Your task to perform on an android device: see tabs open on other devices in the chrome app Image 0: 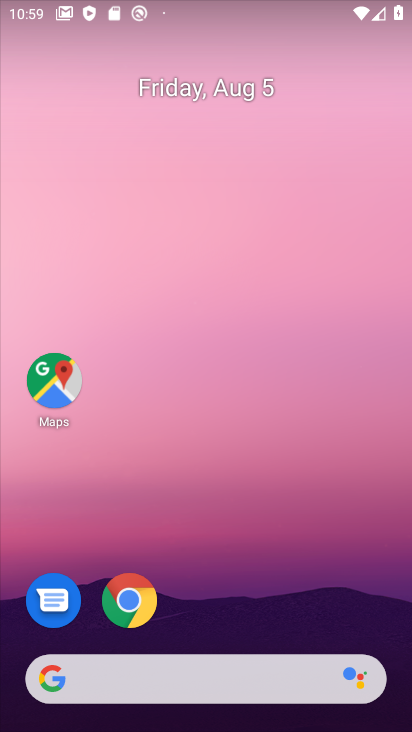
Step 0: click (124, 599)
Your task to perform on an android device: see tabs open on other devices in the chrome app Image 1: 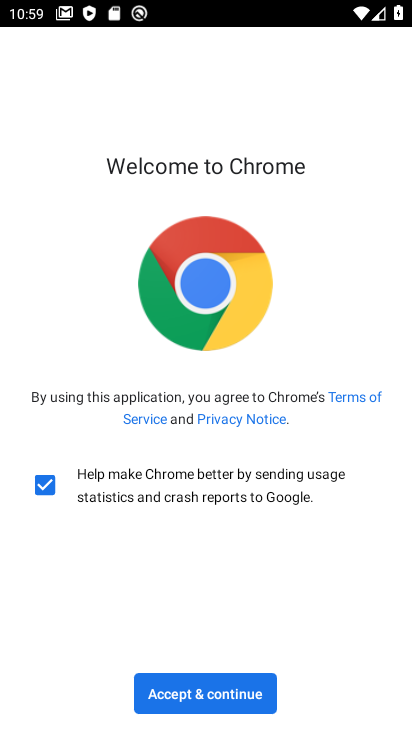
Step 1: click (213, 700)
Your task to perform on an android device: see tabs open on other devices in the chrome app Image 2: 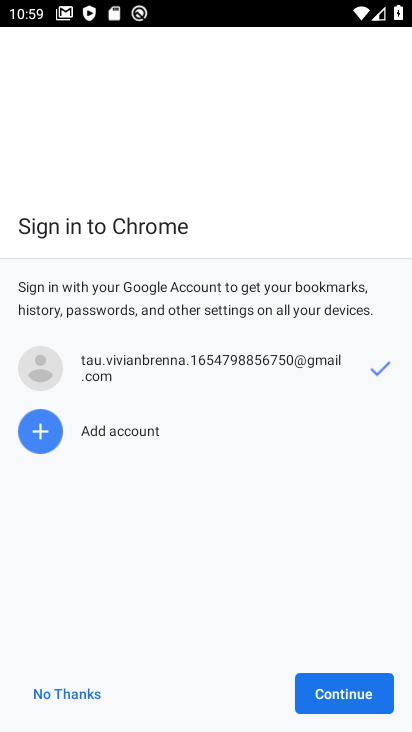
Step 2: click (332, 693)
Your task to perform on an android device: see tabs open on other devices in the chrome app Image 3: 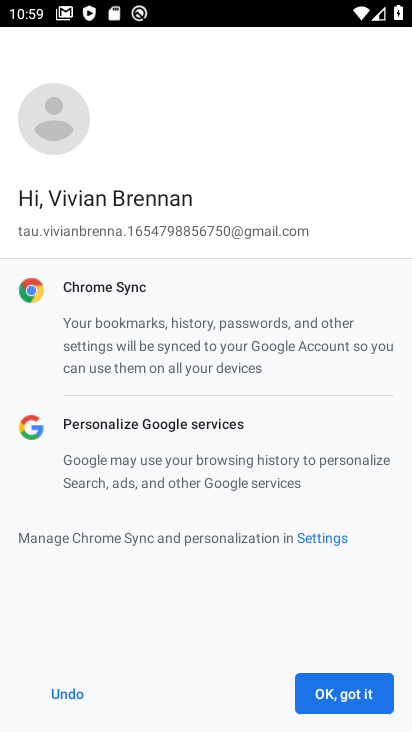
Step 3: click (325, 687)
Your task to perform on an android device: see tabs open on other devices in the chrome app Image 4: 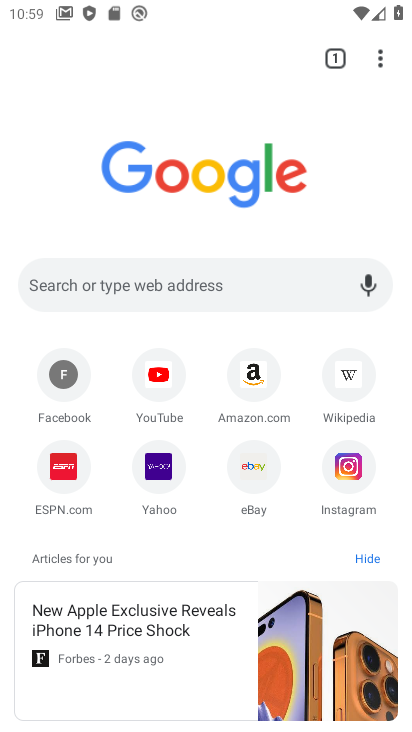
Step 4: click (381, 70)
Your task to perform on an android device: see tabs open on other devices in the chrome app Image 5: 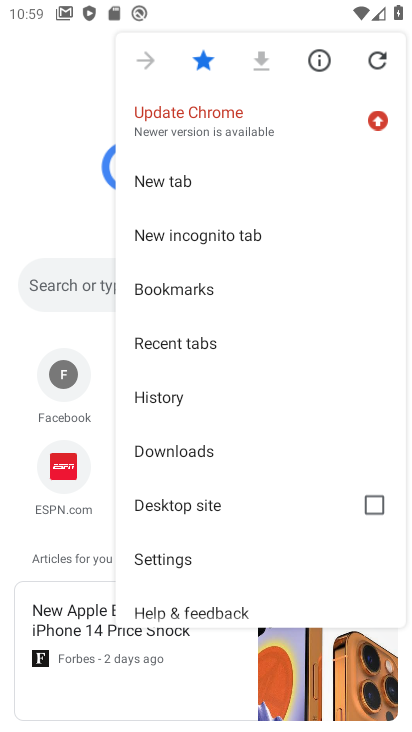
Step 5: click (166, 338)
Your task to perform on an android device: see tabs open on other devices in the chrome app Image 6: 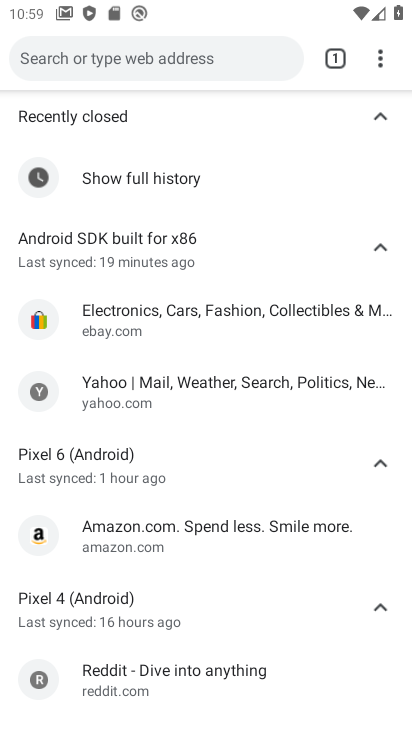
Step 6: task complete